Your task to perform on an android device: Open Android settings Image 0: 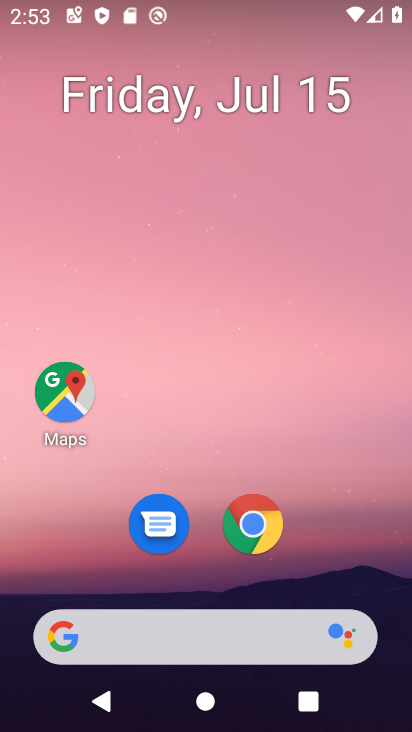
Step 0: drag from (174, 644) to (325, 107)
Your task to perform on an android device: Open Android settings Image 1: 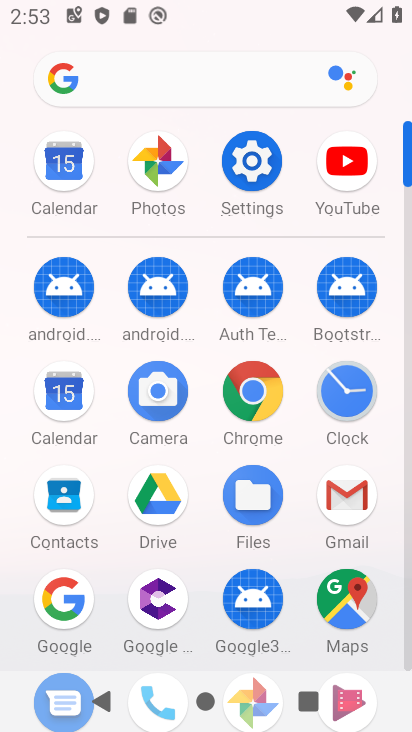
Step 1: click (258, 165)
Your task to perform on an android device: Open Android settings Image 2: 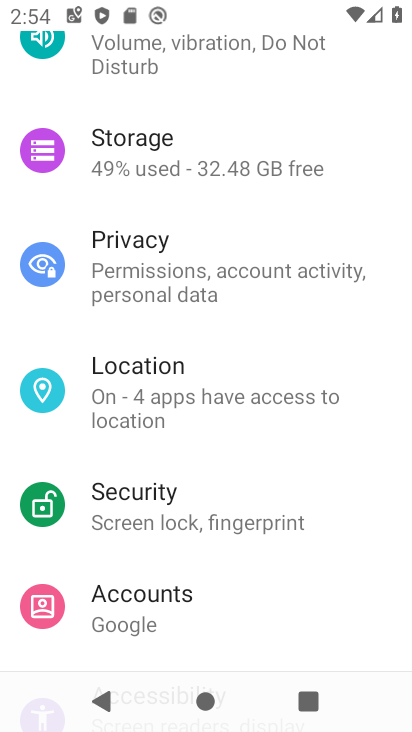
Step 2: task complete